Your task to perform on an android device: turn off location Image 0: 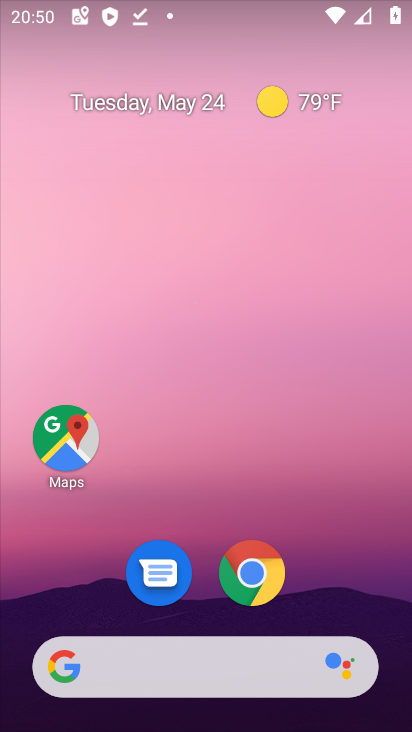
Step 0: drag from (336, 633) to (201, 82)
Your task to perform on an android device: turn off location Image 1: 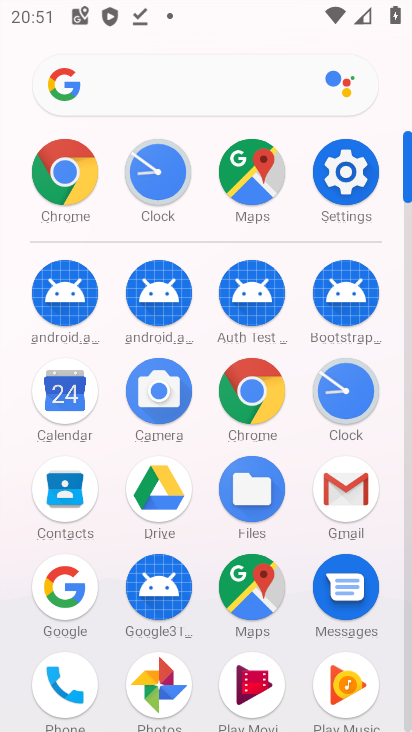
Step 1: click (346, 172)
Your task to perform on an android device: turn off location Image 2: 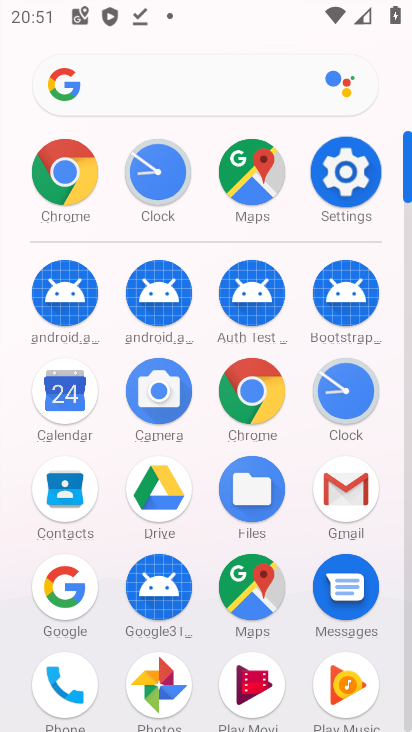
Step 2: click (346, 172)
Your task to perform on an android device: turn off location Image 3: 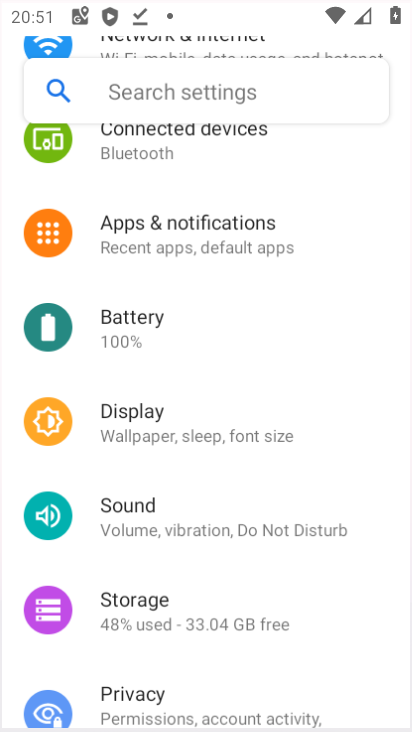
Step 3: click (346, 172)
Your task to perform on an android device: turn off location Image 4: 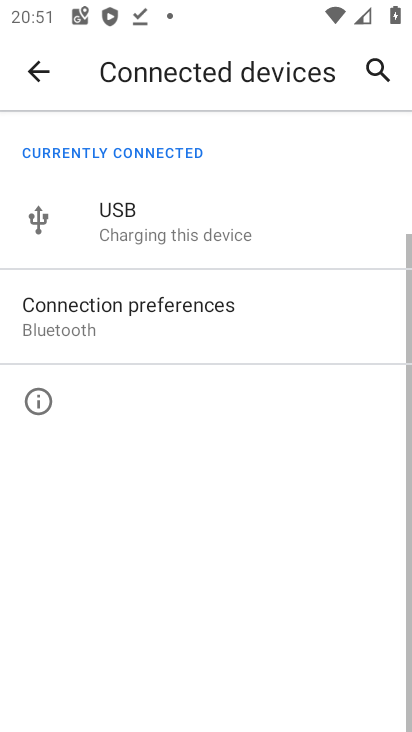
Step 4: click (34, 69)
Your task to perform on an android device: turn off location Image 5: 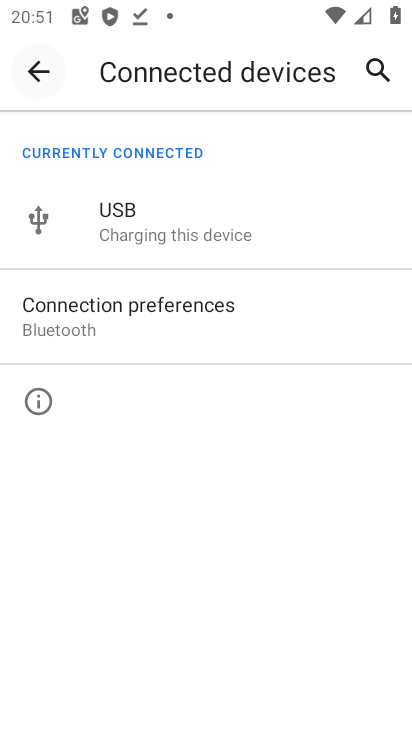
Step 5: click (44, 68)
Your task to perform on an android device: turn off location Image 6: 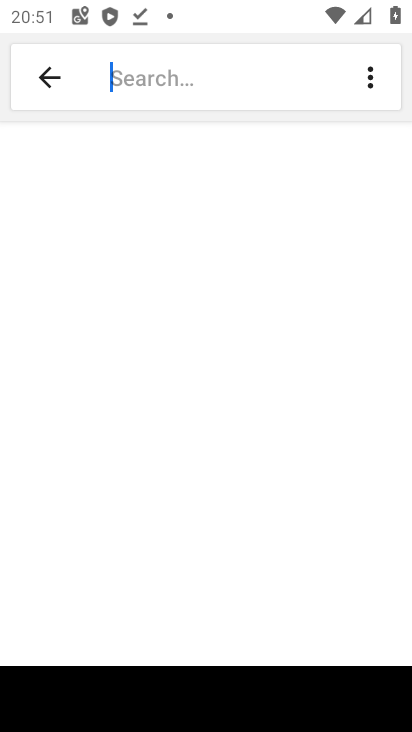
Step 6: click (37, 72)
Your task to perform on an android device: turn off location Image 7: 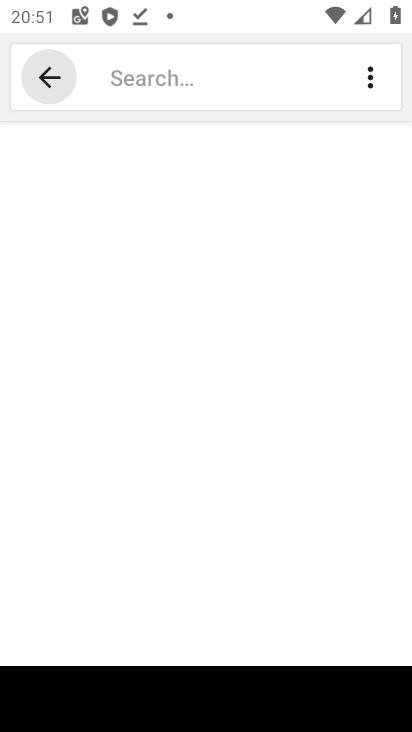
Step 7: click (37, 72)
Your task to perform on an android device: turn off location Image 8: 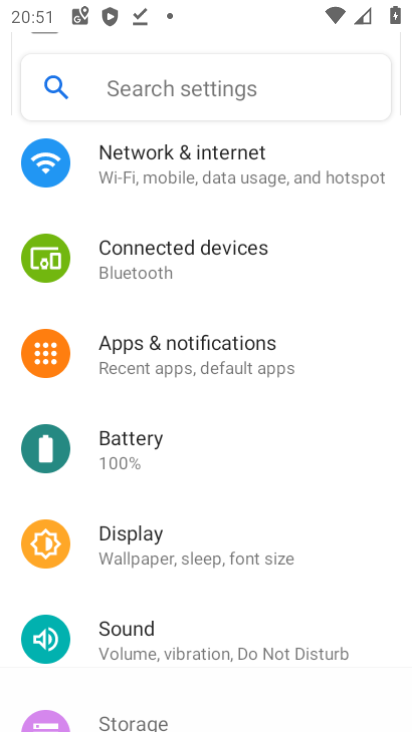
Step 8: click (38, 73)
Your task to perform on an android device: turn off location Image 9: 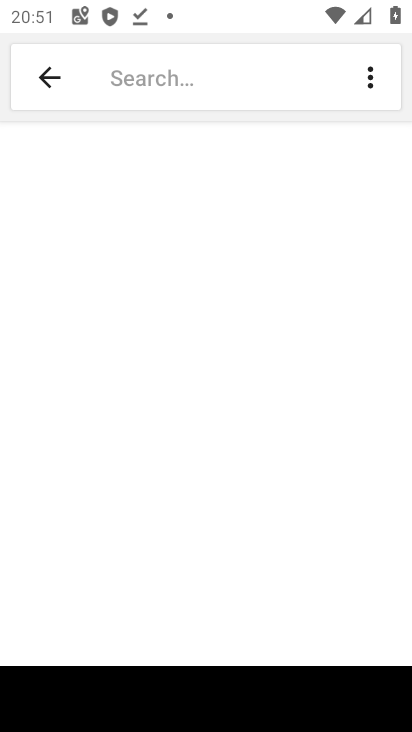
Step 9: click (41, 84)
Your task to perform on an android device: turn off location Image 10: 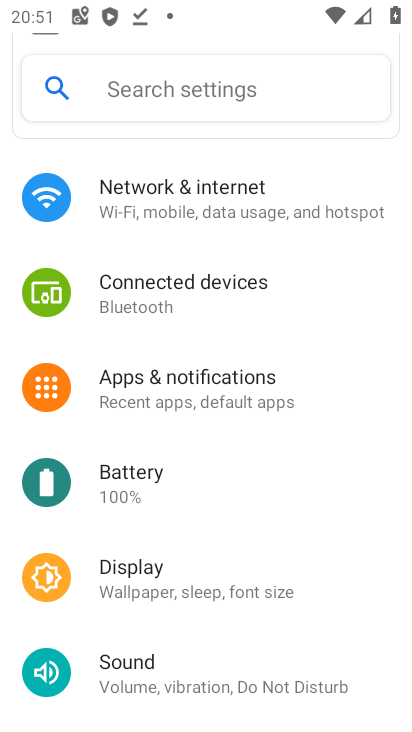
Step 10: drag from (219, 525) to (224, 193)
Your task to perform on an android device: turn off location Image 11: 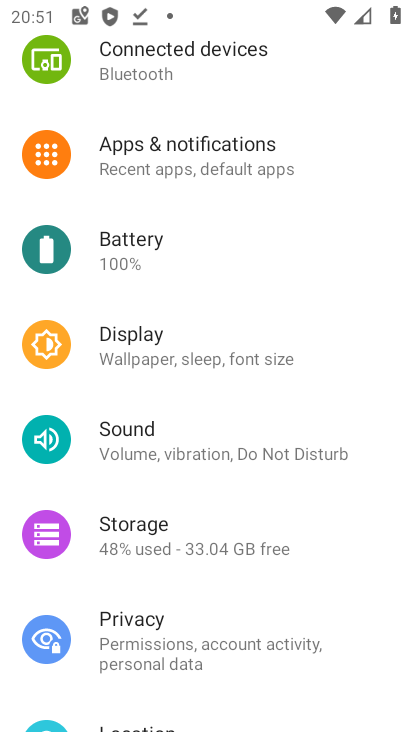
Step 11: drag from (223, 478) to (249, 81)
Your task to perform on an android device: turn off location Image 12: 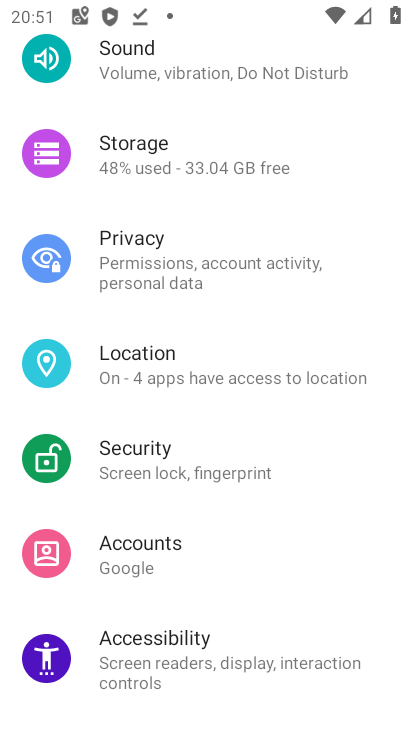
Step 12: click (154, 367)
Your task to perform on an android device: turn off location Image 13: 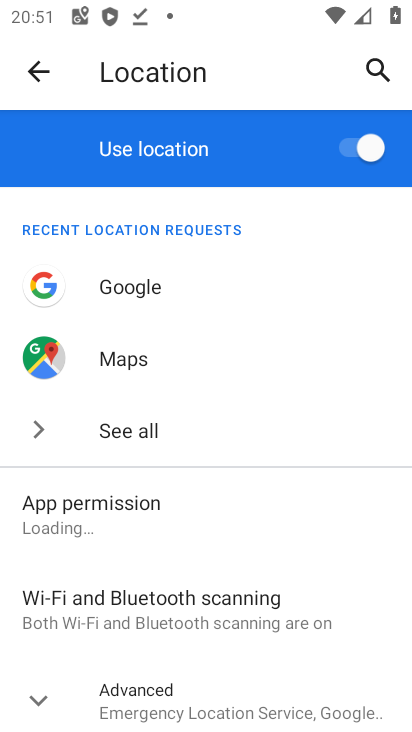
Step 13: click (366, 156)
Your task to perform on an android device: turn off location Image 14: 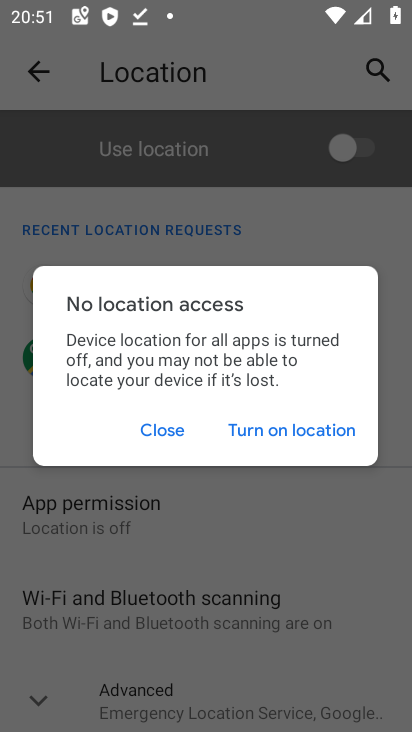
Step 14: task complete